Your task to perform on an android device: Open Google Image 0: 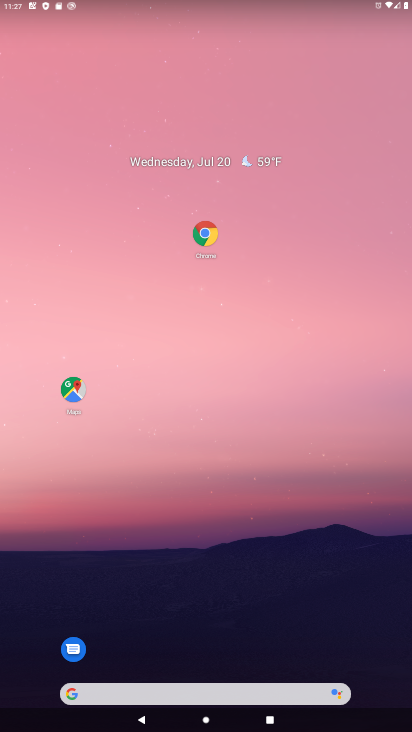
Step 0: drag from (199, 657) to (240, 120)
Your task to perform on an android device: Open Google Image 1: 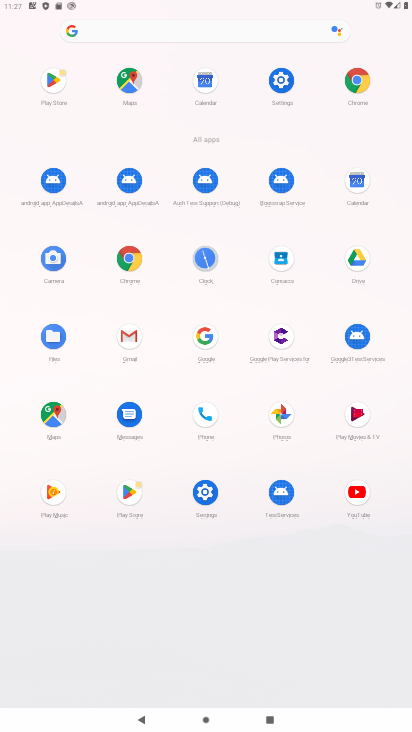
Step 1: click (205, 336)
Your task to perform on an android device: Open Google Image 2: 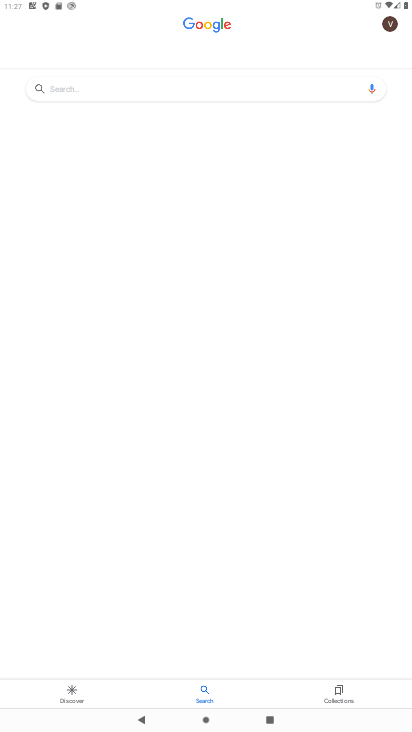
Step 2: task complete